Your task to perform on an android device: turn notification dots off Image 0: 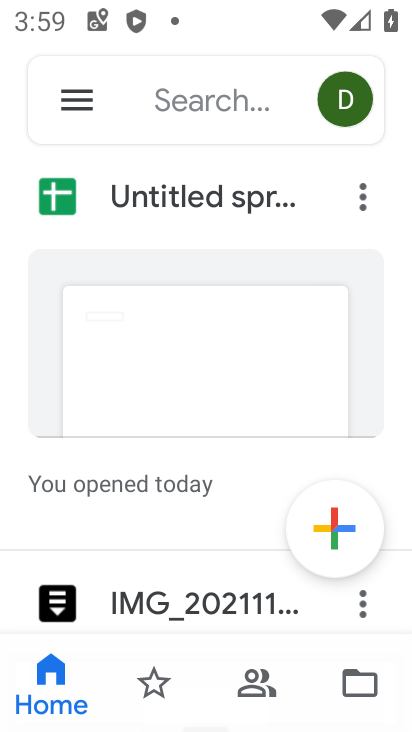
Step 0: press home button
Your task to perform on an android device: turn notification dots off Image 1: 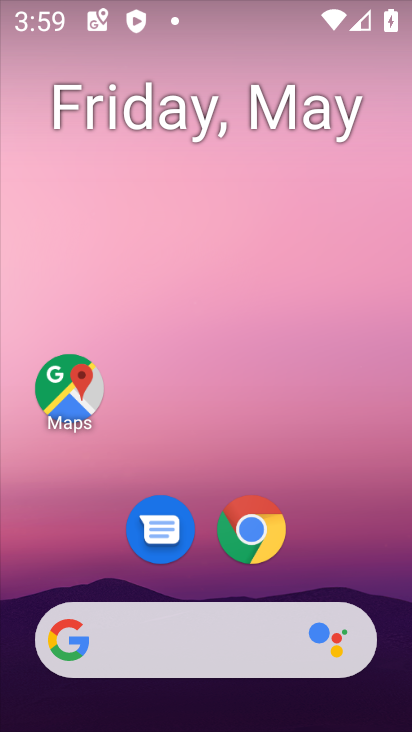
Step 1: drag from (220, 638) to (317, 152)
Your task to perform on an android device: turn notification dots off Image 2: 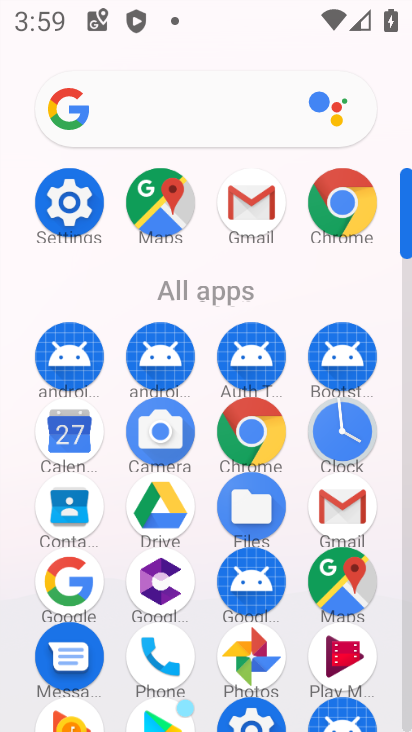
Step 2: click (71, 223)
Your task to perform on an android device: turn notification dots off Image 3: 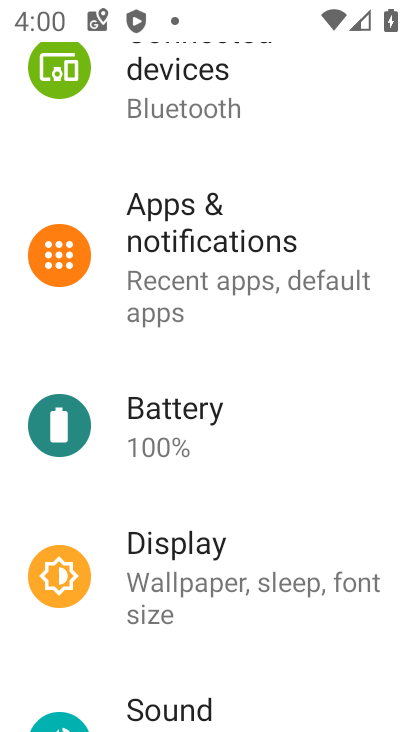
Step 3: click (171, 284)
Your task to perform on an android device: turn notification dots off Image 4: 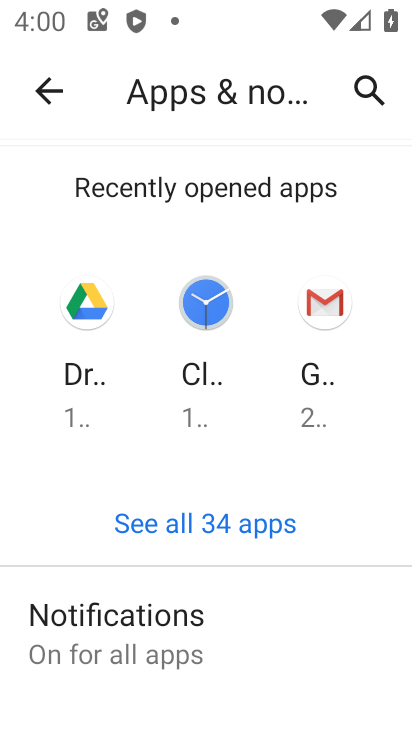
Step 4: click (191, 623)
Your task to perform on an android device: turn notification dots off Image 5: 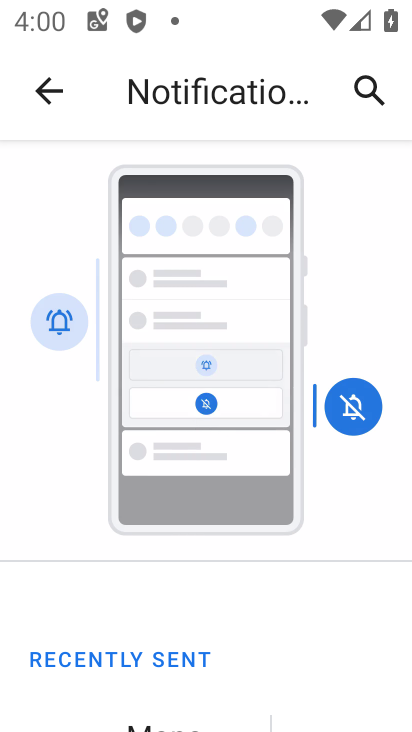
Step 5: drag from (218, 674) to (248, 380)
Your task to perform on an android device: turn notification dots off Image 6: 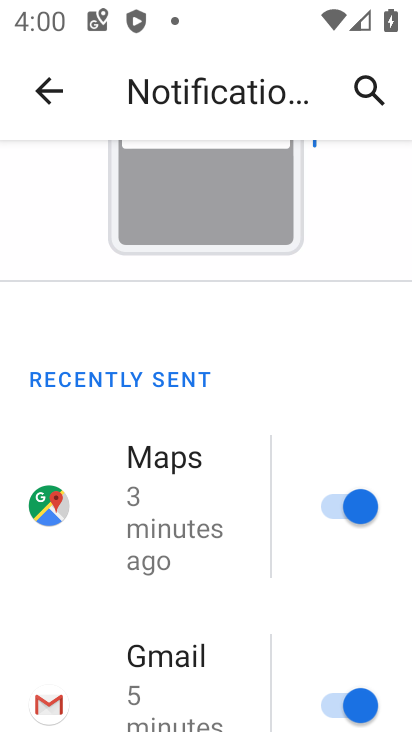
Step 6: drag from (222, 682) to (276, 406)
Your task to perform on an android device: turn notification dots off Image 7: 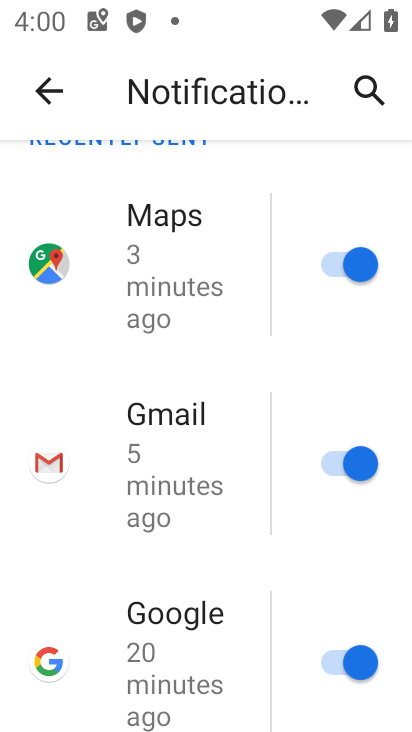
Step 7: drag from (201, 686) to (248, 321)
Your task to perform on an android device: turn notification dots off Image 8: 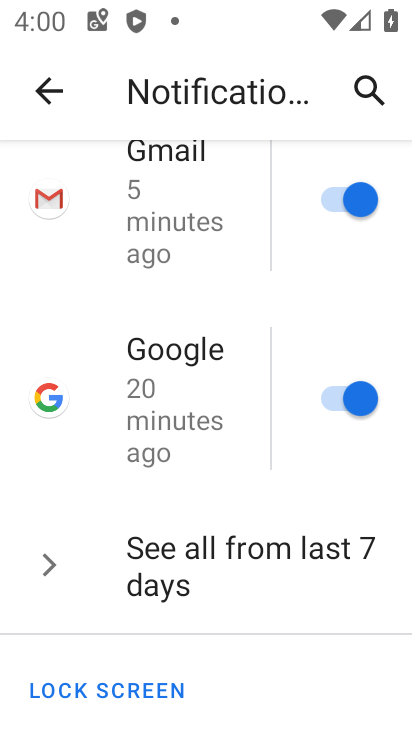
Step 8: drag from (173, 702) to (219, 351)
Your task to perform on an android device: turn notification dots off Image 9: 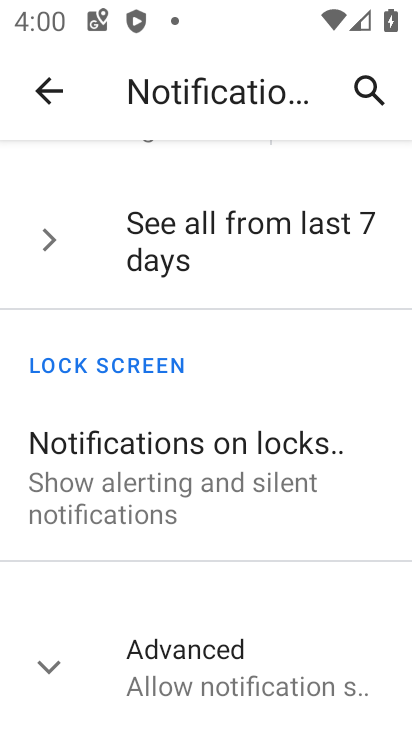
Step 9: click (176, 662)
Your task to perform on an android device: turn notification dots off Image 10: 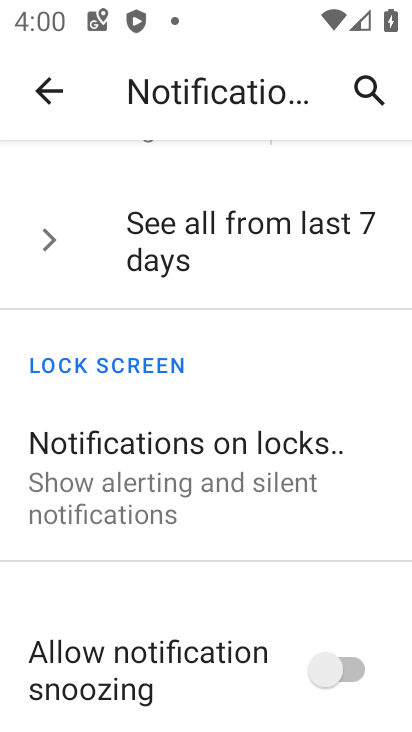
Step 10: drag from (176, 663) to (201, 529)
Your task to perform on an android device: turn notification dots off Image 11: 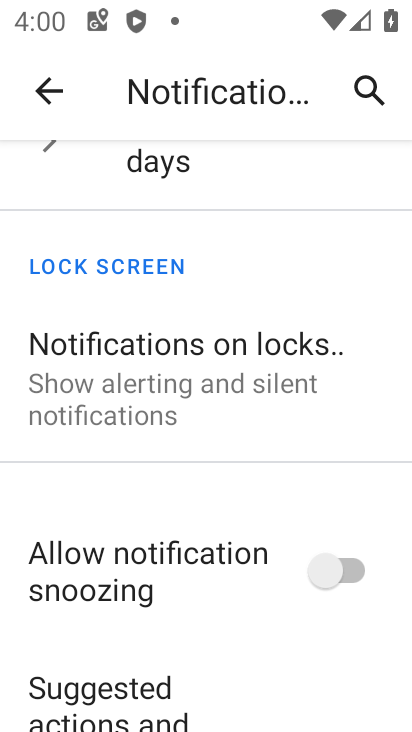
Step 11: drag from (205, 522) to (244, 255)
Your task to perform on an android device: turn notification dots off Image 12: 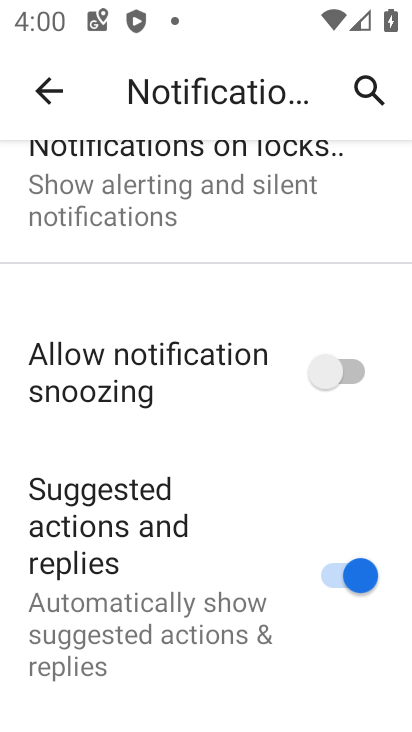
Step 12: drag from (242, 628) to (264, 364)
Your task to perform on an android device: turn notification dots off Image 13: 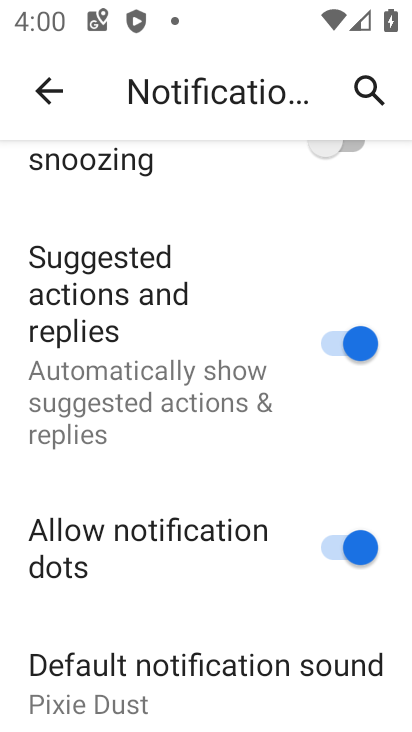
Step 13: click (333, 561)
Your task to perform on an android device: turn notification dots off Image 14: 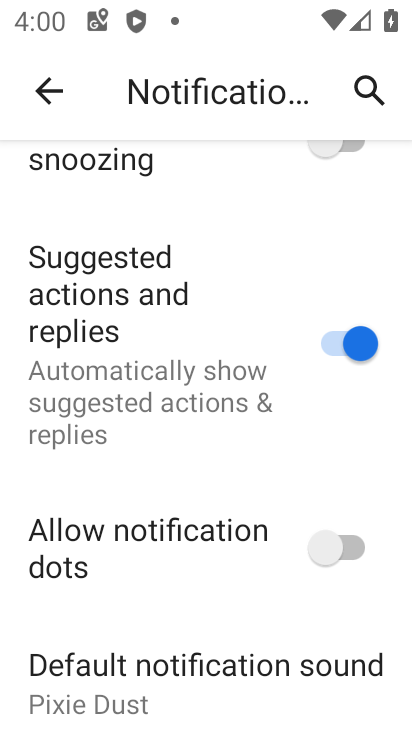
Step 14: task complete